Your task to perform on an android device: turn on notifications settings in the gmail app Image 0: 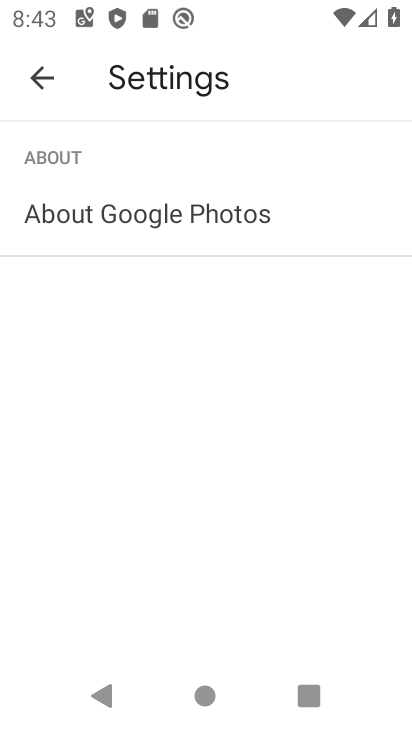
Step 0: press home button
Your task to perform on an android device: turn on notifications settings in the gmail app Image 1: 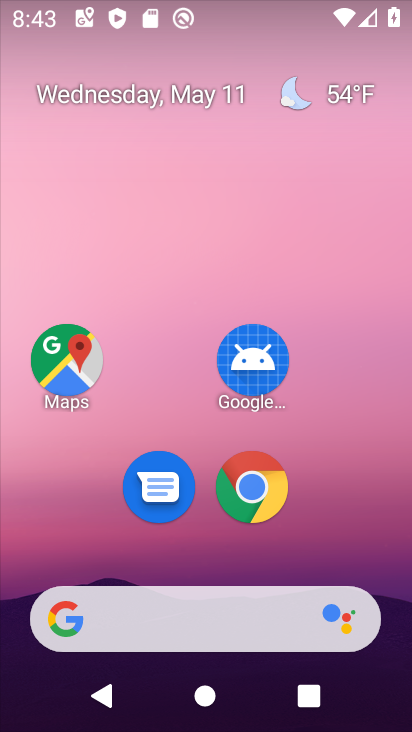
Step 1: drag from (77, 584) to (221, 97)
Your task to perform on an android device: turn on notifications settings in the gmail app Image 2: 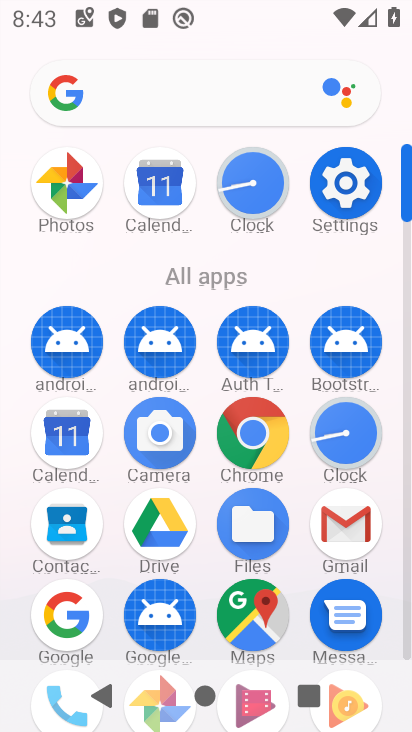
Step 2: drag from (163, 647) to (235, 434)
Your task to perform on an android device: turn on notifications settings in the gmail app Image 3: 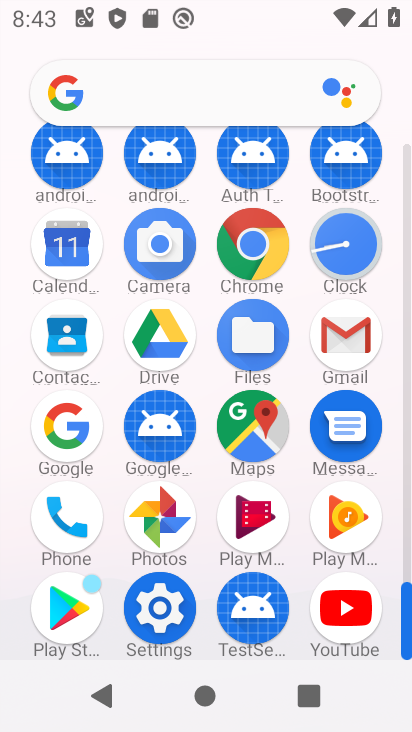
Step 3: click (365, 335)
Your task to perform on an android device: turn on notifications settings in the gmail app Image 4: 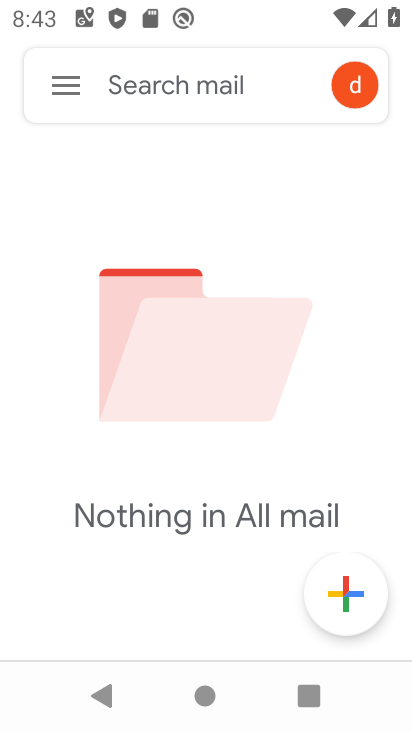
Step 4: click (74, 100)
Your task to perform on an android device: turn on notifications settings in the gmail app Image 5: 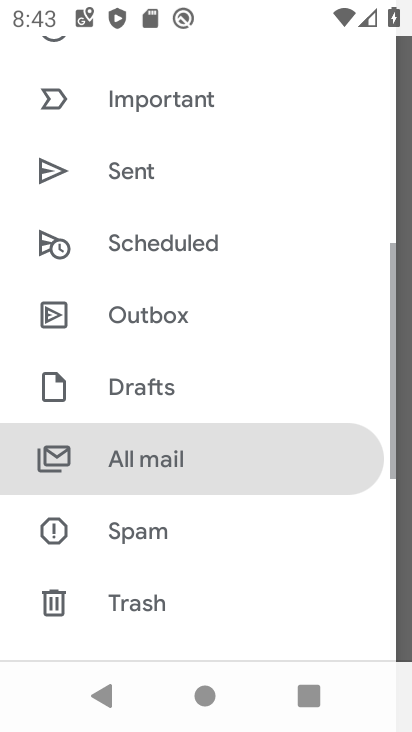
Step 5: drag from (131, 535) to (226, 145)
Your task to perform on an android device: turn on notifications settings in the gmail app Image 6: 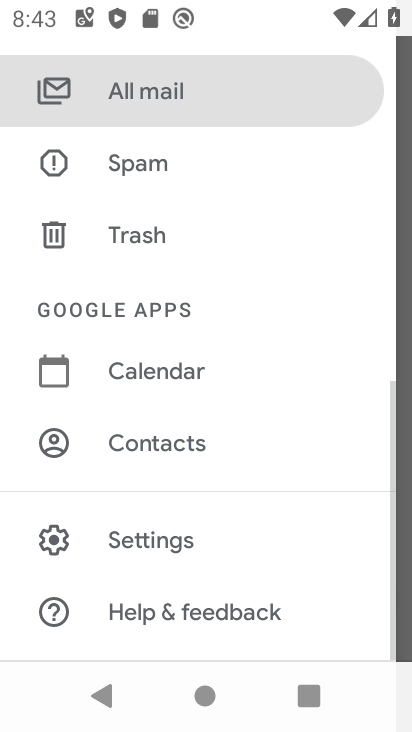
Step 6: drag from (143, 546) to (207, 286)
Your task to perform on an android device: turn on notifications settings in the gmail app Image 7: 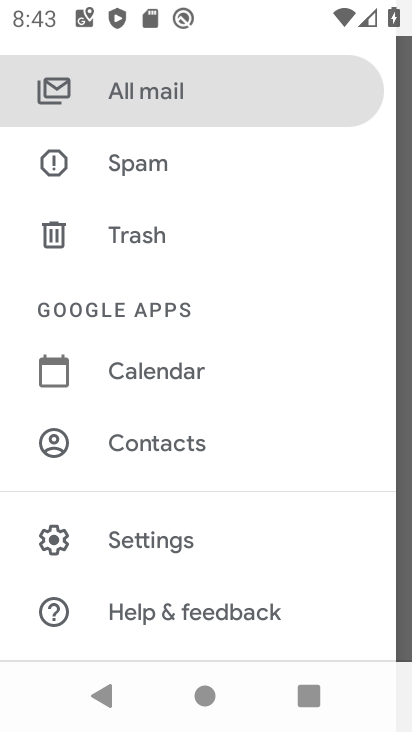
Step 7: click (185, 555)
Your task to perform on an android device: turn on notifications settings in the gmail app Image 8: 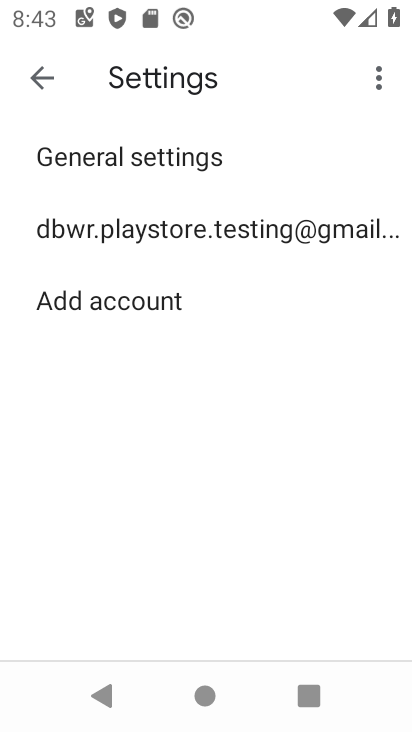
Step 8: click (271, 262)
Your task to perform on an android device: turn on notifications settings in the gmail app Image 9: 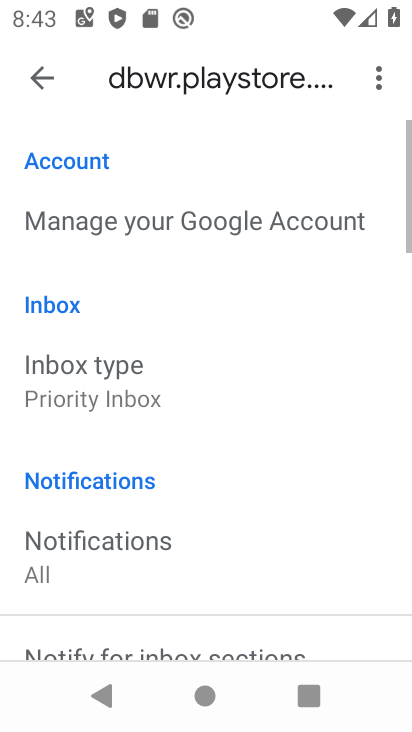
Step 9: drag from (237, 576) to (299, 366)
Your task to perform on an android device: turn on notifications settings in the gmail app Image 10: 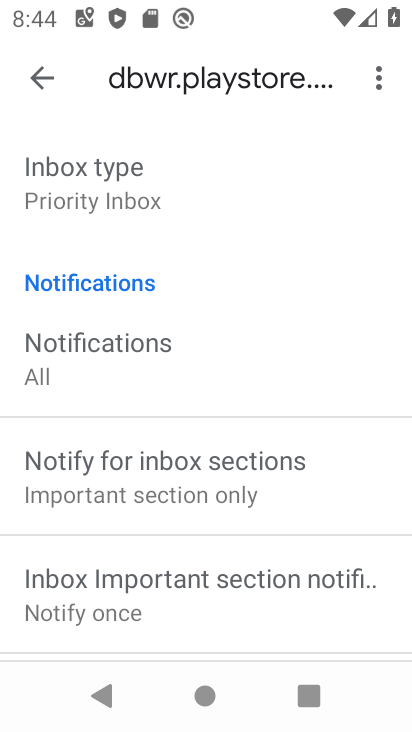
Step 10: drag from (165, 562) to (223, 346)
Your task to perform on an android device: turn on notifications settings in the gmail app Image 11: 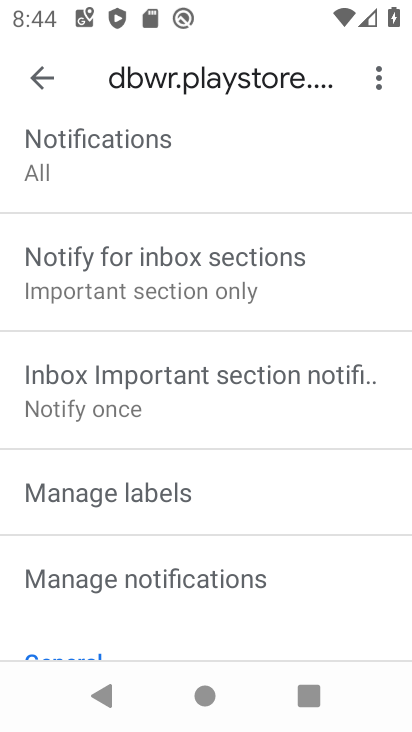
Step 11: click (202, 588)
Your task to perform on an android device: turn on notifications settings in the gmail app Image 12: 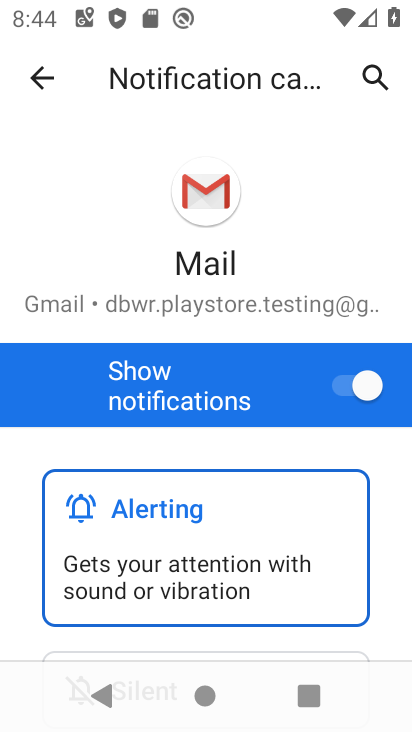
Step 12: task complete